Your task to perform on an android device: turn on translation in the chrome app Image 0: 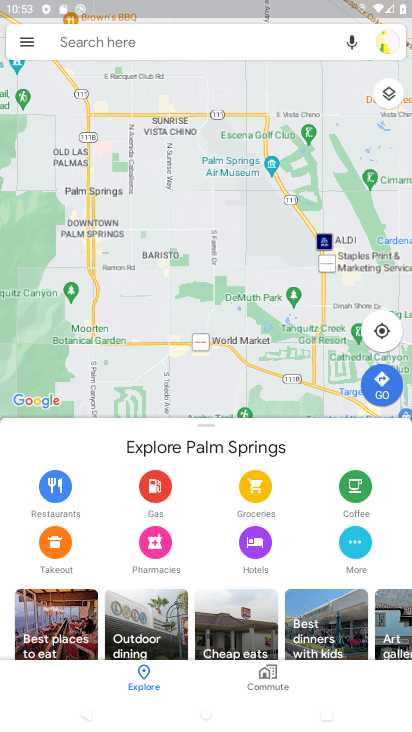
Step 0: press back button
Your task to perform on an android device: turn on translation in the chrome app Image 1: 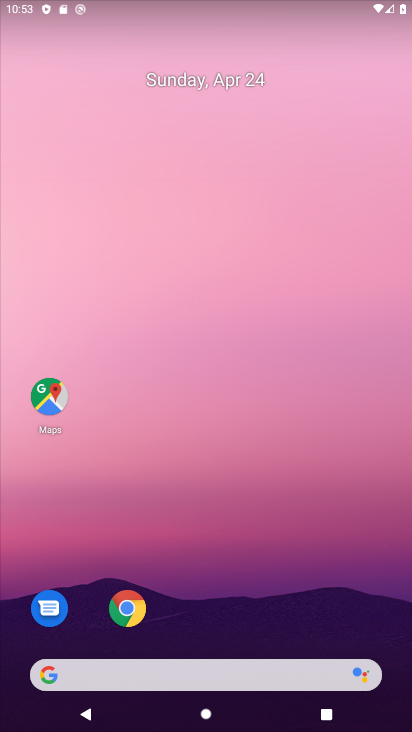
Step 1: click (128, 606)
Your task to perform on an android device: turn on translation in the chrome app Image 2: 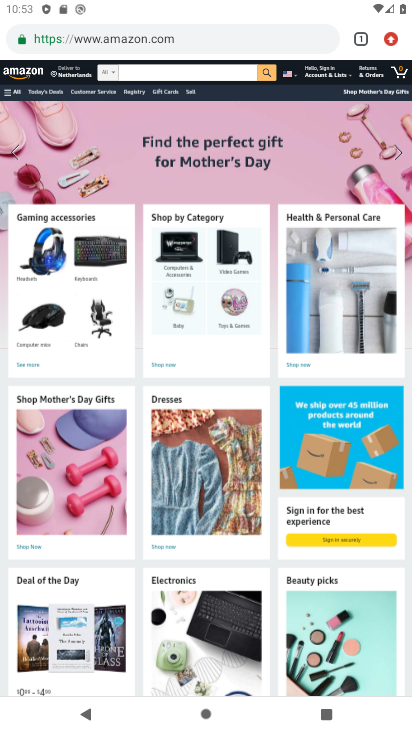
Step 2: drag from (389, 36) to (263, 520)
Your task to perform on an android device: turn on translation in the chrome app Image 3: 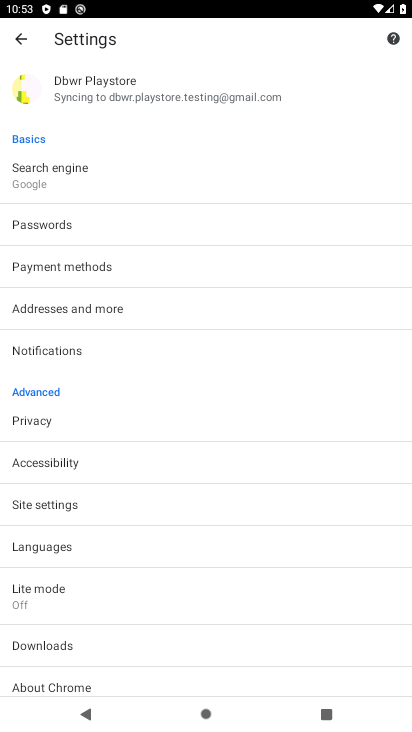
Step 3: drag from (195, 496) to (228, 157)
Your task to perform on an android device: turn on translation in the chrome app Image 4: 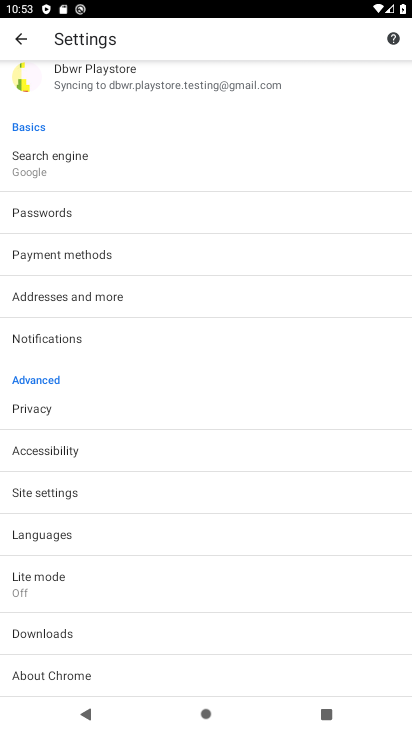
Step 4: click (76, 538)
Your task to perform on an android device: turn on translation in the chrome app Image 5: 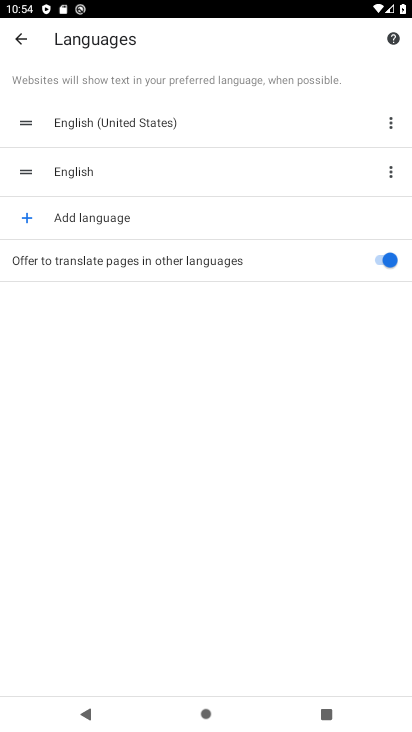
Step 5: task complete